Your task to perform on an android device: toggle wifi Image 0: 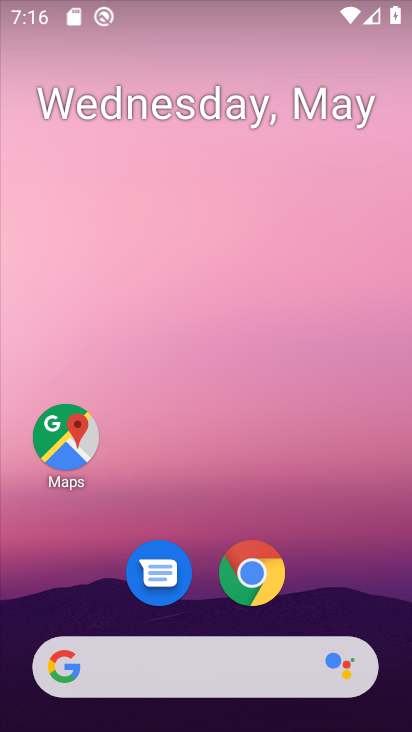
Step 0: drag from (394, 710) to (305, 234)
Your task to perform on an android device: toggle wifi Image 1: 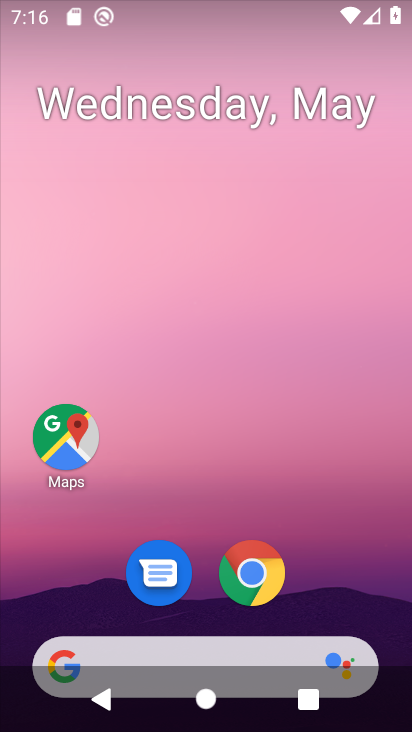
Step 1: drag from (393, 690) to (288, 157)
Your task to perform on an android device: toggle wifi Image 2: 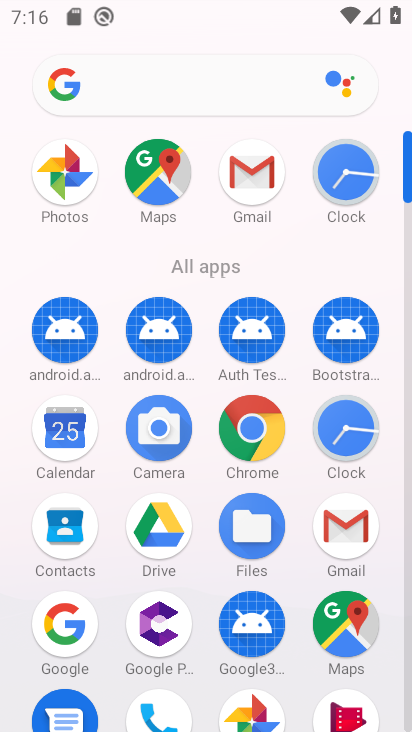
Step 2: drag from (297, 694) to (286, 201)
Your task to perform on an android device: toggle wifi Image 3: 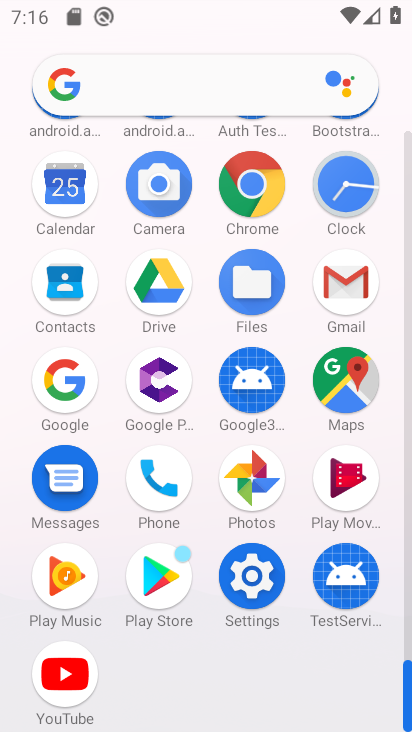
Step 3: click (242, 567)
Your task to perform on an android device: toggle wifi Image 4: 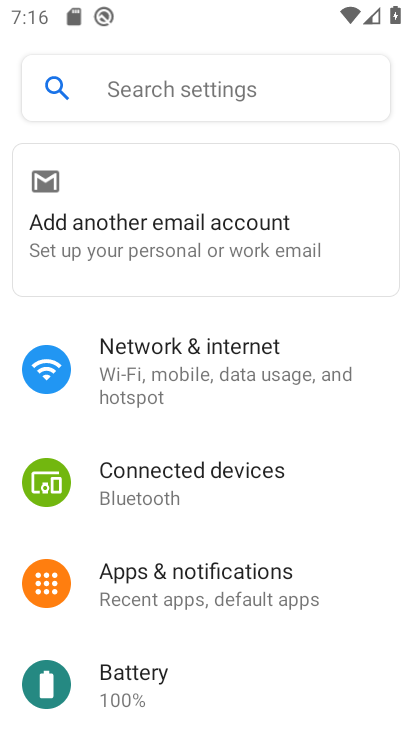
Step 4: click (145, 369)
Your task to perform on an android device: toggle wifi Image 5: 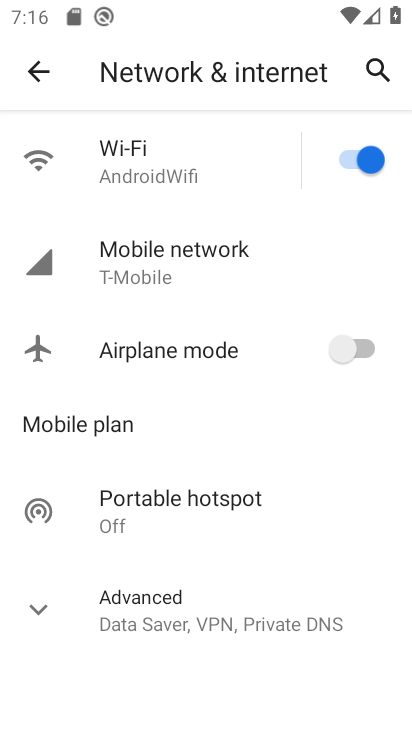
Step 5: click (347, 166)
Your task to perform on an android device: toggle wifi Image 6: 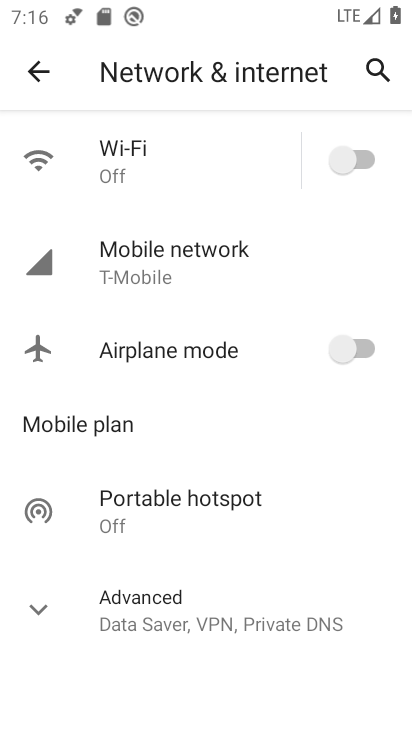
Step 6: task complete